Your task to perform on an android device: search for starred emails in the gmail app Image 0: 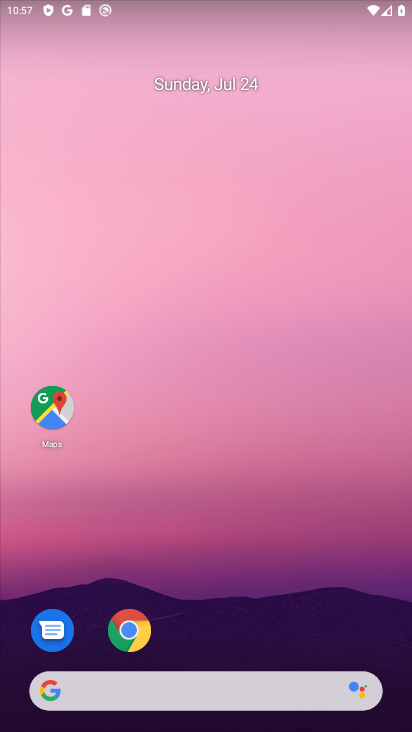
Step 0: press home button
Your task to perform on an android device: search for starred emails in the gmail app Image 1: 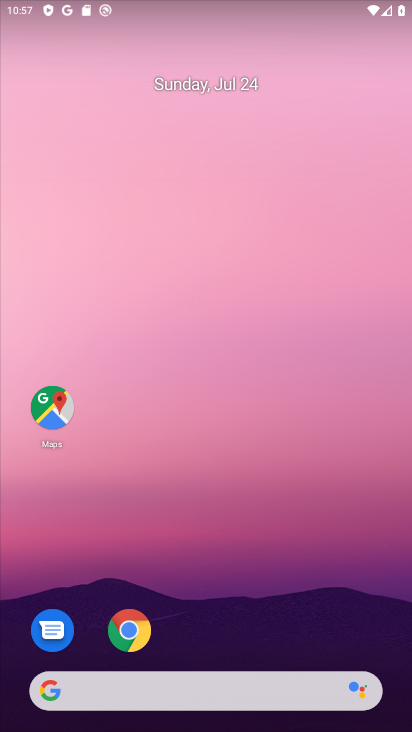
Step 1: drag from (254, 636) to (244, 73)
Your task to perform on an android device: search for starred emails in the gmail app Image 2: 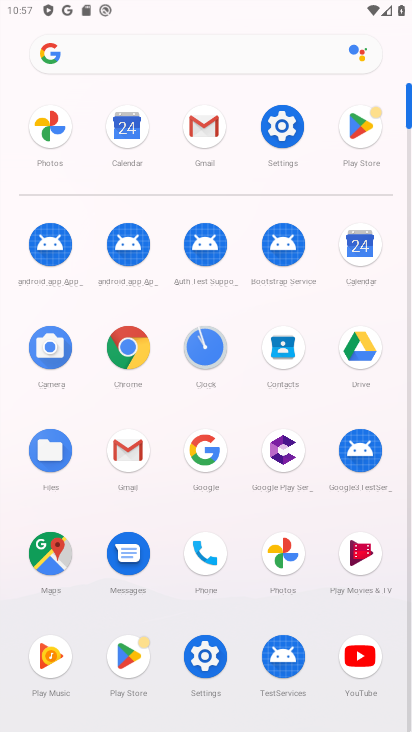
Step 2: click (209, 118)
Your task to perform on an android device: search for starred emails in the gmail app Image 3: 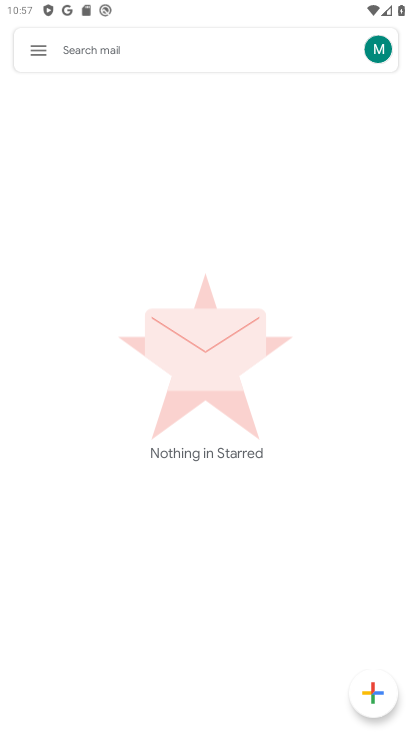
Step 3: click (22, 37)
Your task to perform on an android device: search for starred emails in the gmail app Image 4: 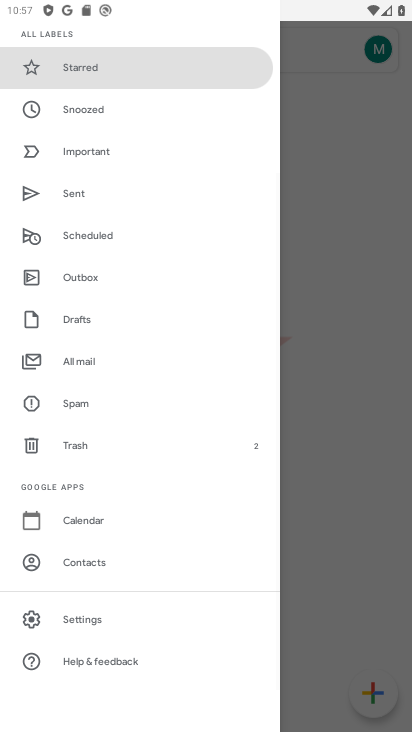
Step 4: click (68, 68)
Your task to perform on an android device: search for starred emails in the gmail app Image 5: 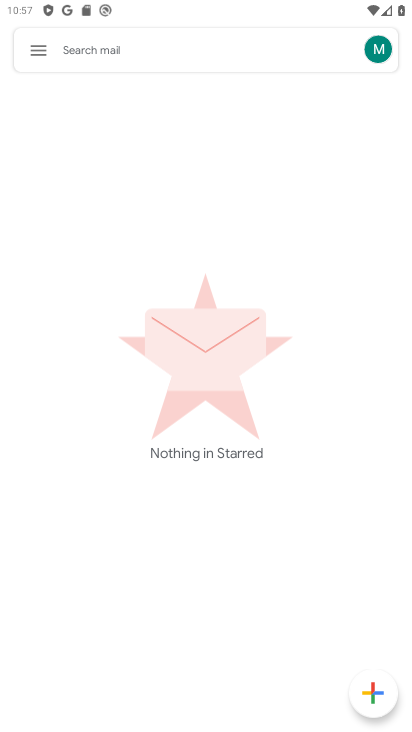
Step 5: task complete